Your task to perform on an android device: add a label to a message in the gmail app Image 0: 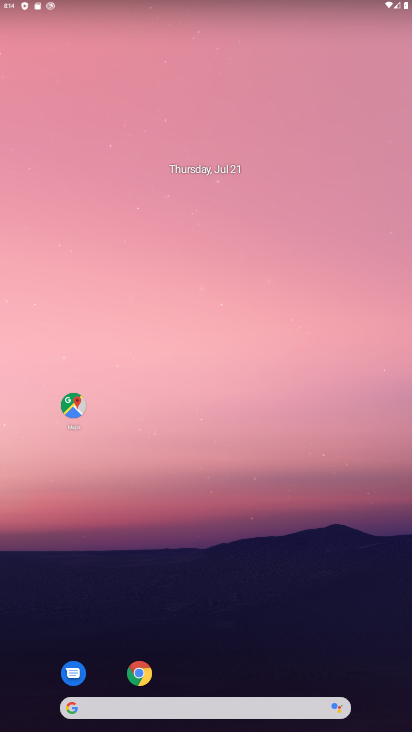
Step 0: drag from (207, 716) to (151, 98)
Your task to perform on an android device: add a label to a message in the gmail app Image 1: 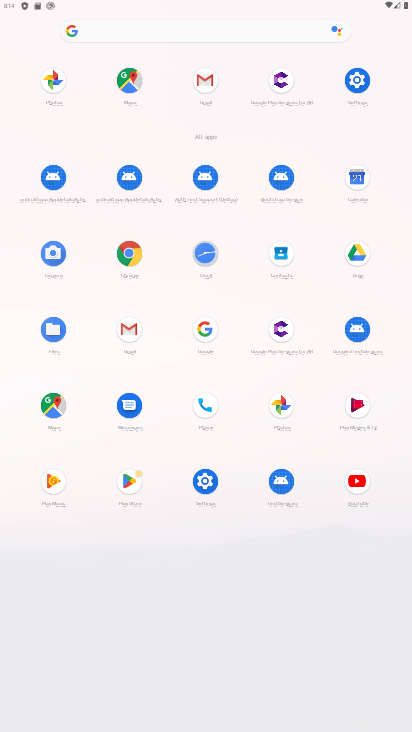
Step 1: click (130, 335)
Your task to perform on an android device: add a label to a message in the gmail app Image 2: 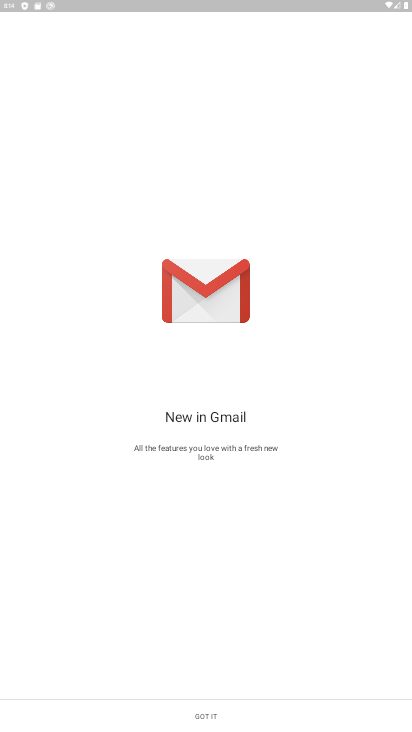
Step 2: click (195, 718)
Your task to perform on an android device: add a label to a message in the gmail app Image 3: 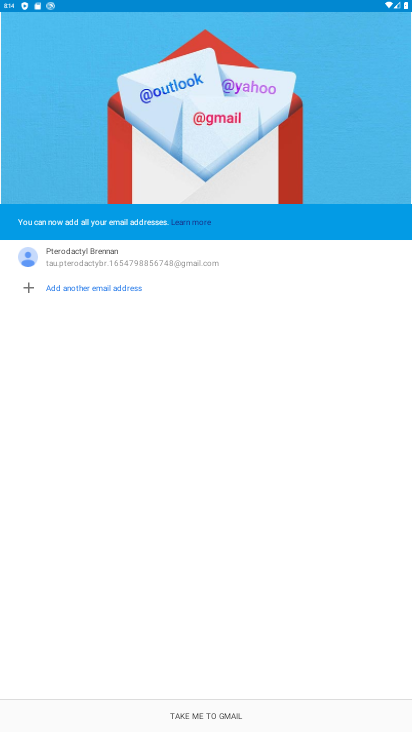
Step 3: click (187, 716)
Your task to perform on an android device: add a label to a message in the gmail app Image 4: 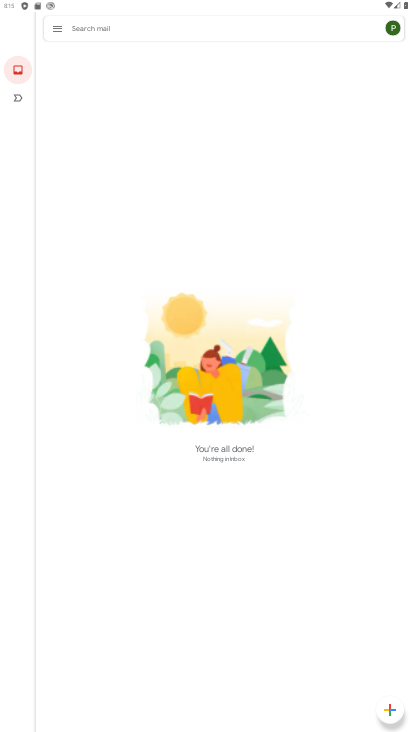
Step 4: task complete